Your task to perform on an android device: clear all cookies in the chrome app Image 0: 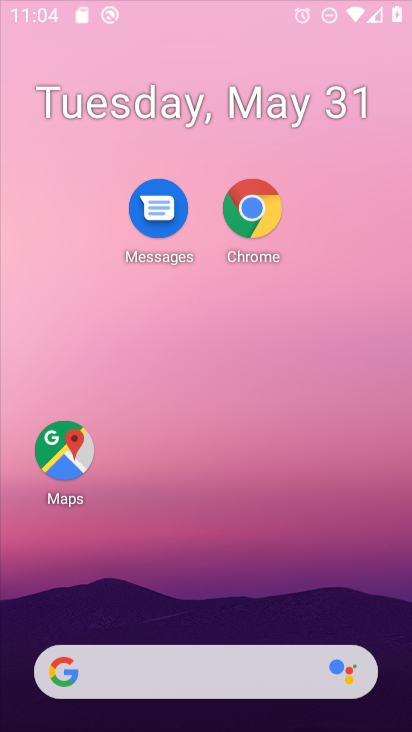
Step 0: press home button
Your task to perform on an android device: clear all cookies in the chrome app Image 1: 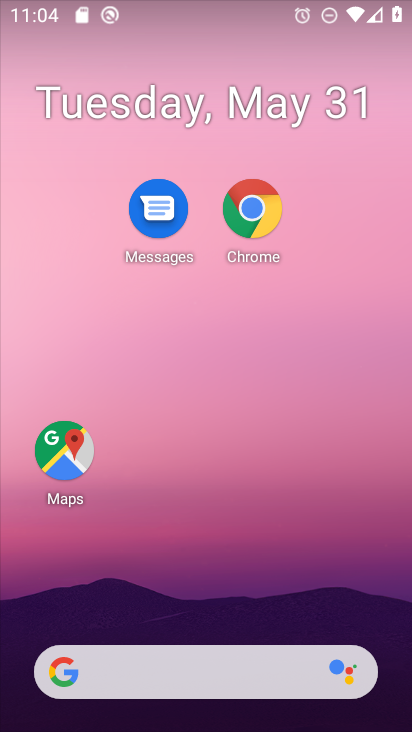
Step 1: press home button
Your task to perform on an android device: clear all cookies in the chrome app Image 2: 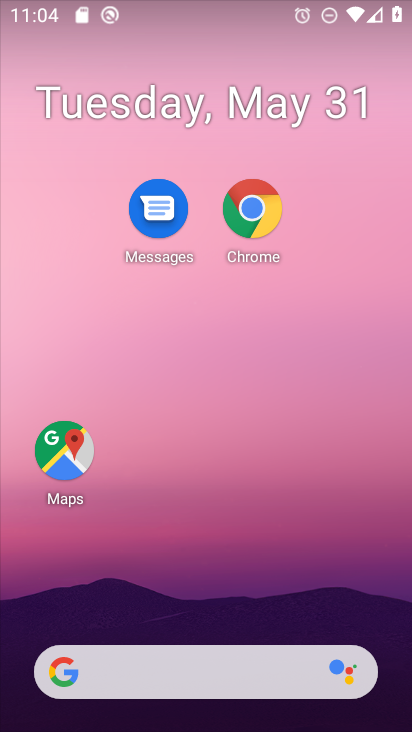
Step 2: click (249, 199)
Your task to perform on an android device: clear all cookies in the chrome app Image 3: 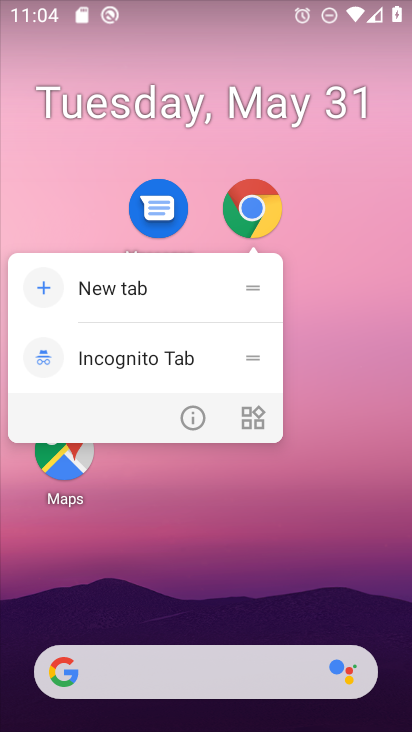
Step 3: click (308, 188)
Your task to perform on an android device: clear all cookies in the chrome app Image 4: 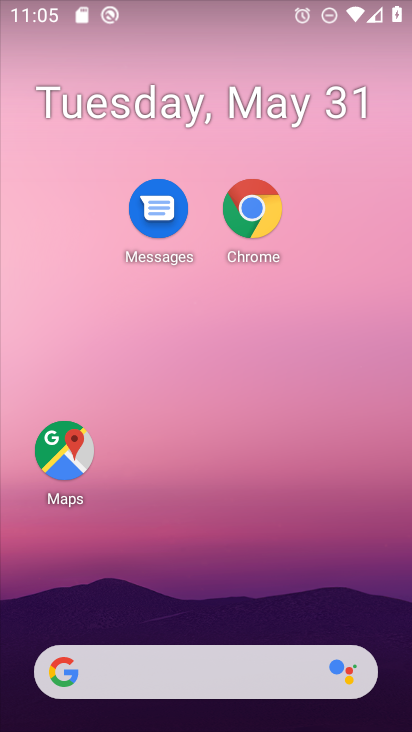
Step 4: click (245, 205)
Your task to perform on an android device: clear all cookies in the chrome app Image 5: 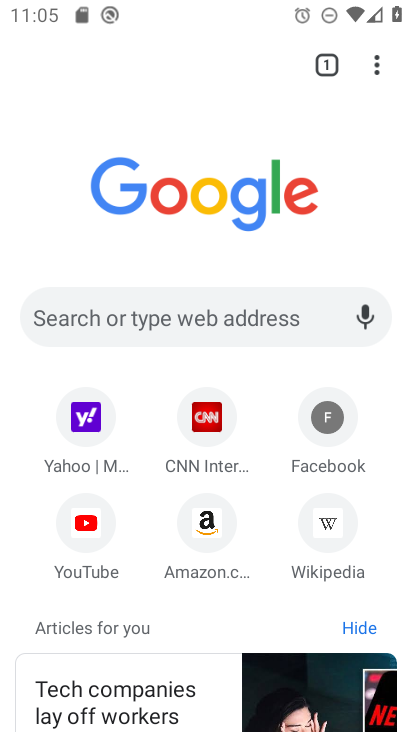
Step 5: click (369, 59)
Your task to perform on an android device: clear all cookies in the chrome app Image 6: 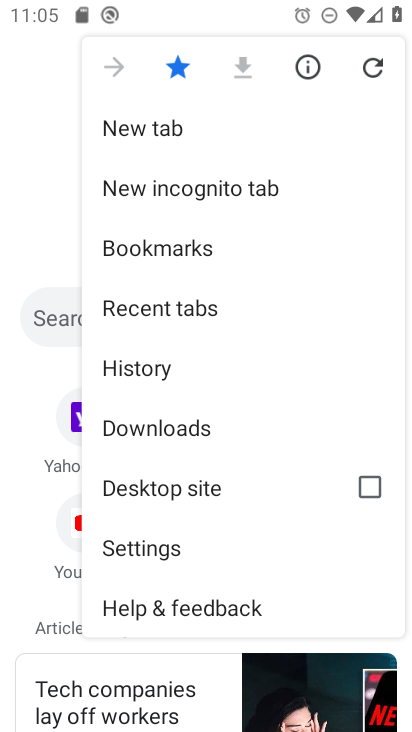
Step 6: click (183, 368)
Your task to perform on an android device: clear all cookies in the chrome app Image 7: 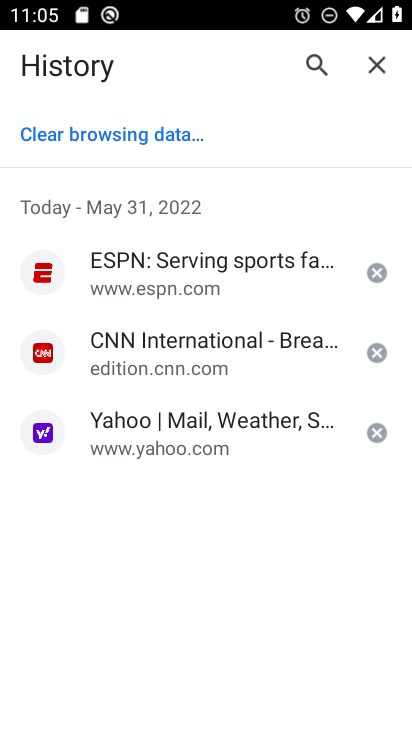
Step 7: click (119, 130)
Your task to perform on an android device: clear all cookies in the chrome app Image 8: 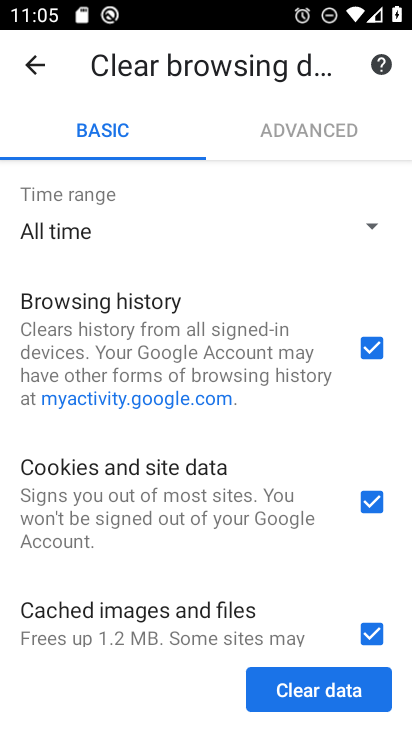
Step 8: click (369, 623)
Your task to perform on an android device: clear all cookies in the chrome app Image 9: 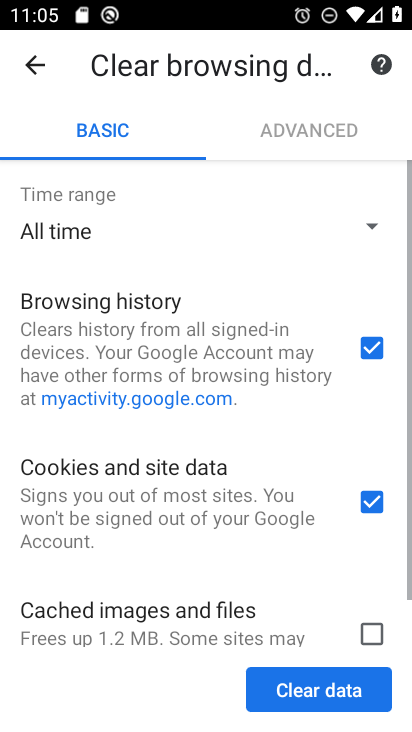
Step 9: click (368, 342)
Your task to perform on an android device: clear all cookies in the chrome app Image 10: 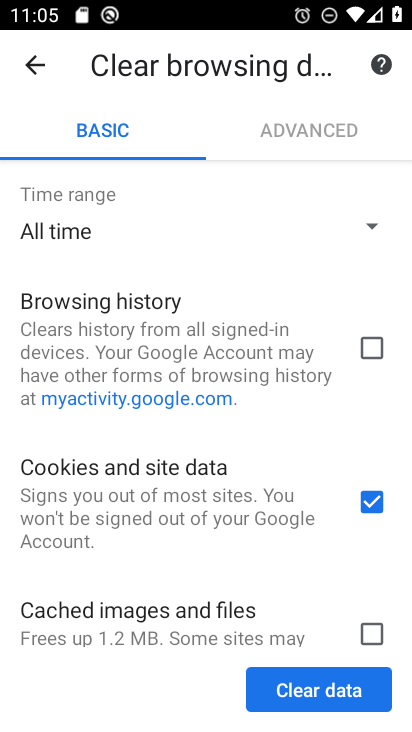
Step 10: click (322, 688)
Your task to perform on an android device: clear all cookies in the chrome app Image 11: 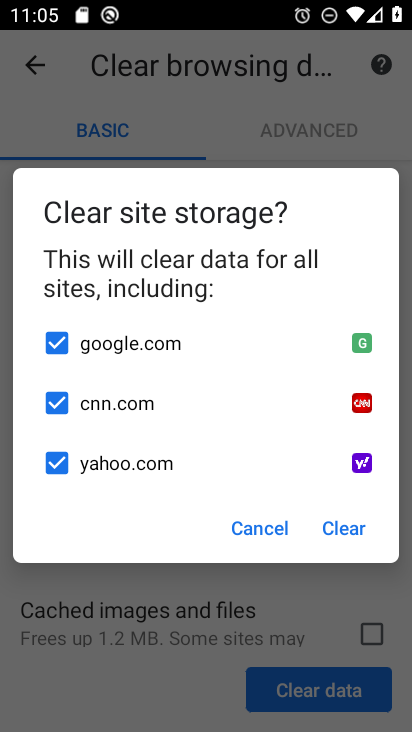
Step 11: task complete